Your task to perform on an android device: install app "Spotify: Music and Podcasts" Image 0: 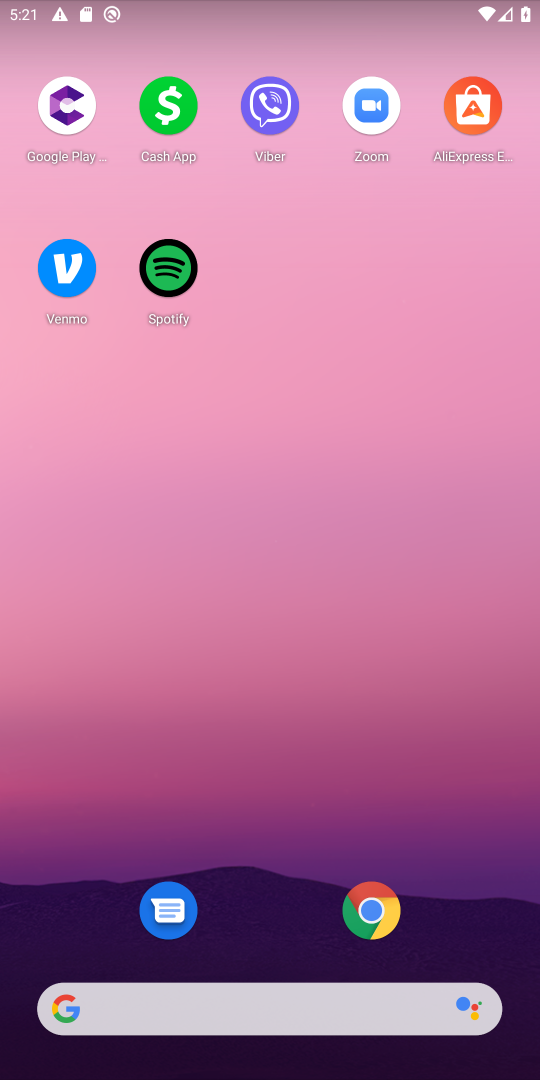
Step 0: drag from (270, 953) to (246, 114)
Your task to perform on an android device: install app "Spotify: Music and Podcasts" Image 1: 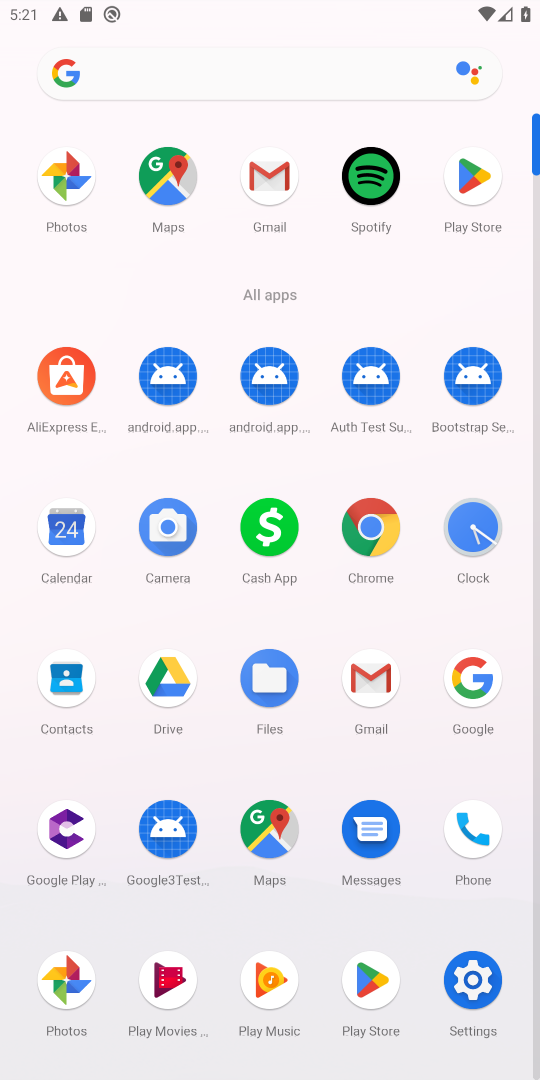
Step 1: click (478, 180)
Your task to perform on an android device: install app "Spotify: Music and Podcasts" Image 2: 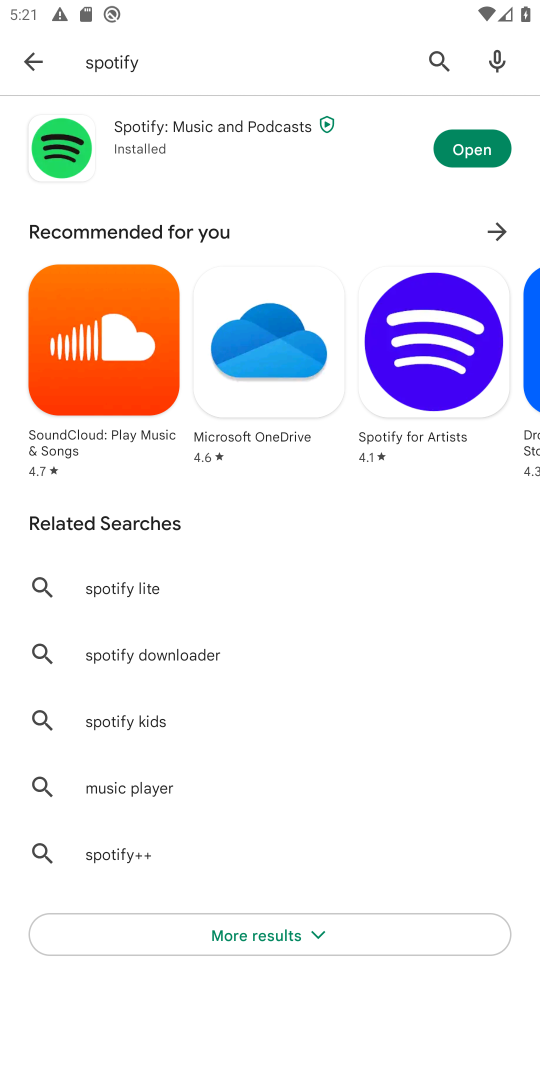
Step 2: click (443, 71)
Your task to perform on an android device: install app "Spotify: Music and Podcasts" Image 3: 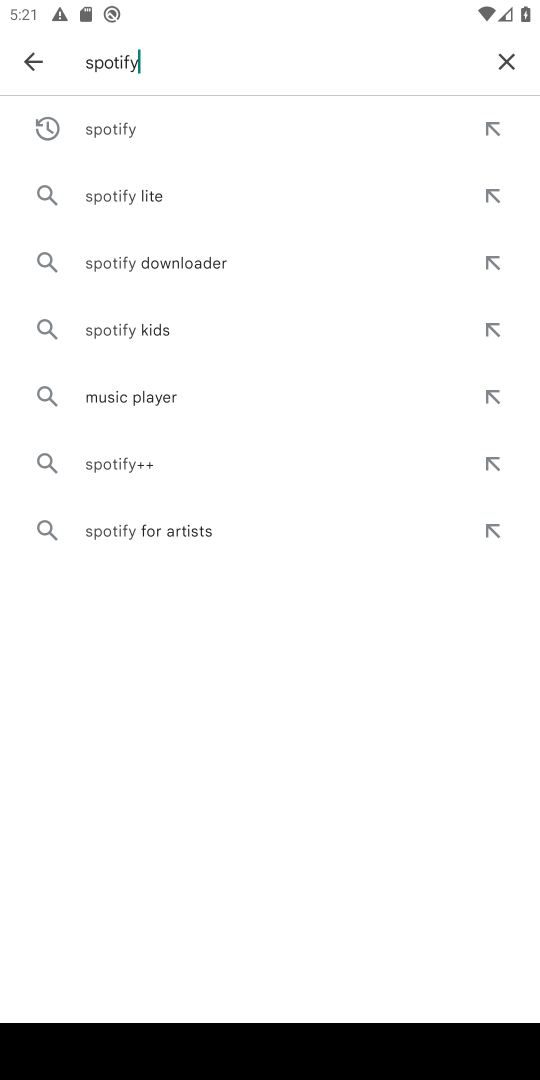
Step 3: click (504, 63)
Your task to perform on an android device: install app "Spotify: Music and Podcasts" Image 4: 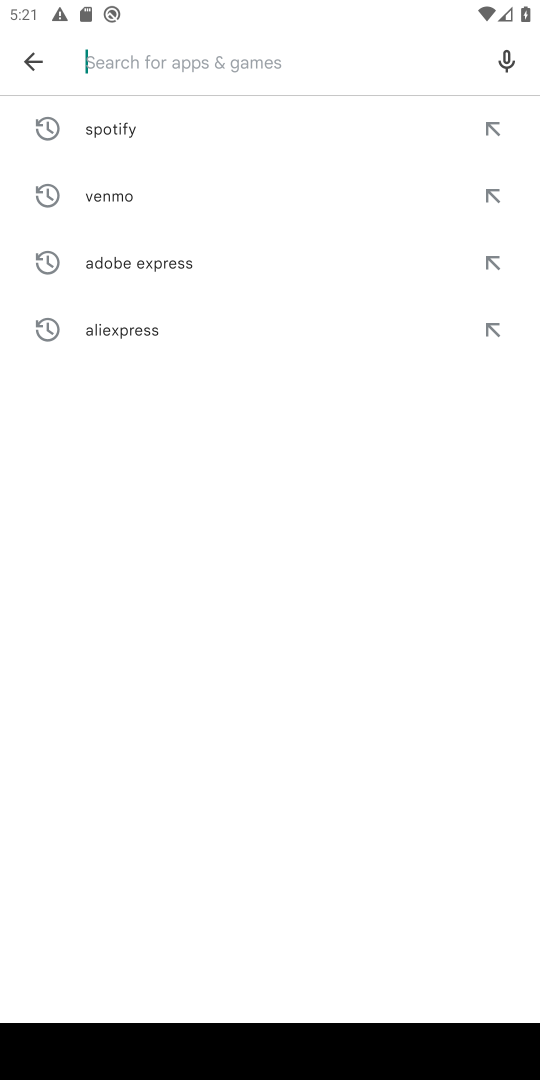
Step 4: type "spotify"
Your task to perform on an android device: install app "Spotify: Music and Podcasts" Image 5: 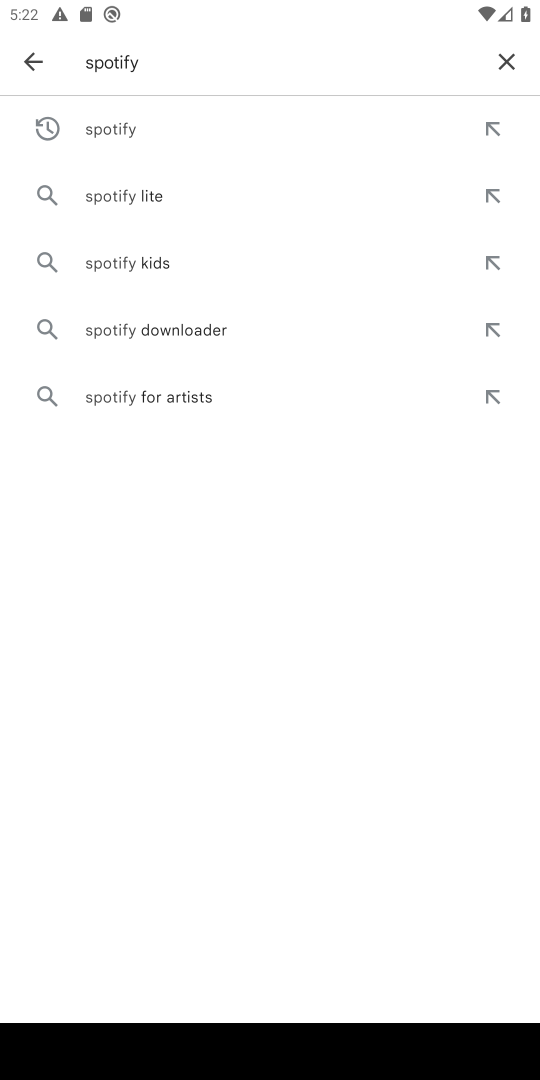
Step 5: click (109, 126)
Your task to perform on an android device: install app "Spotify: Music and Podcasts" Image 6: 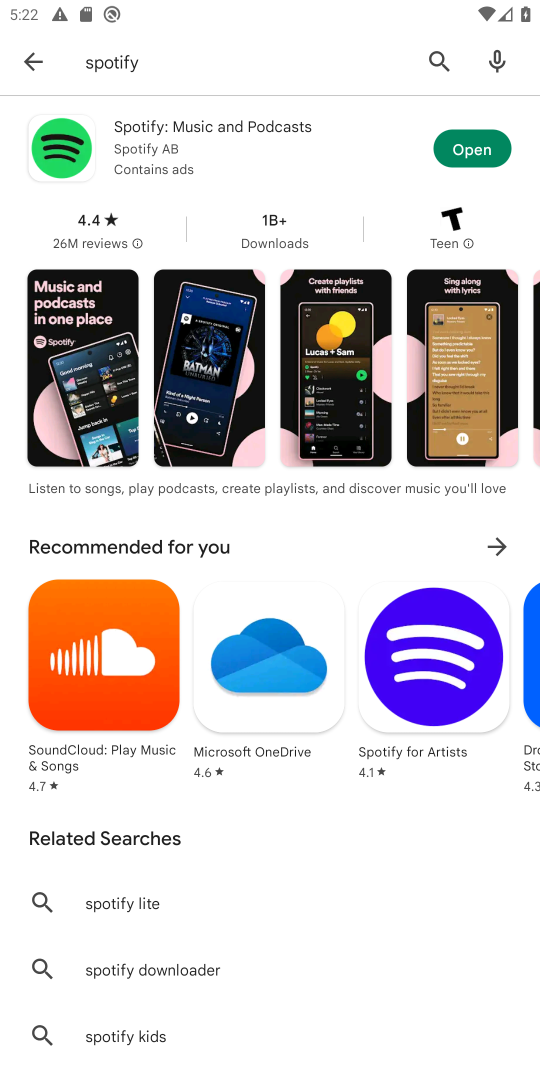
Step 6: task complete